Your task to perform on an android device: search for starred emails in the gmail app Image 0: 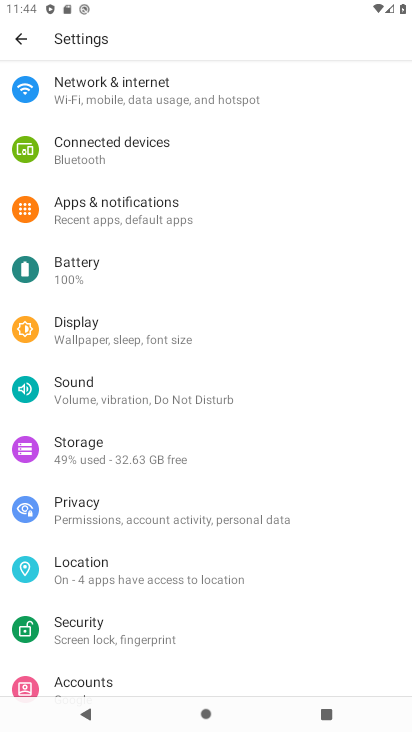
Step 0: press home button
Your task to perform on an android device: search for starred emails in the gmail app Image 1: 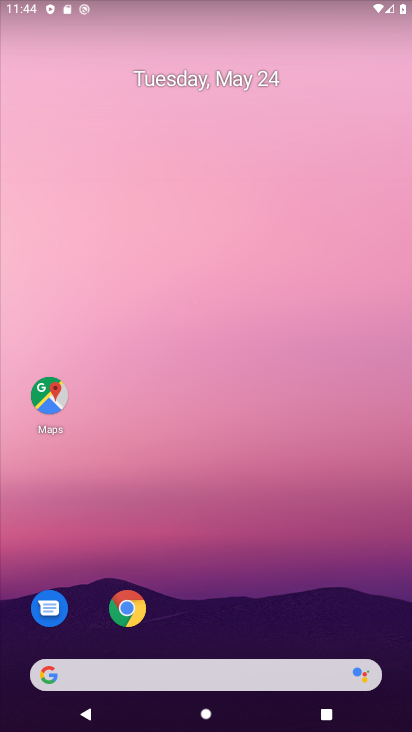
Step 1: drag from (210, 616) to (227, 521)
Your task to perform on an android device: search for starred emails in the gmail app Image 2: 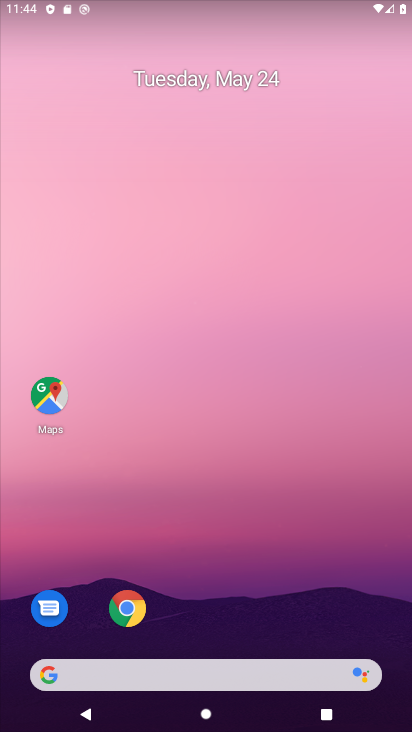
Step 2: drag from (170, 639) to (269, 142)
Your task to perform on an android device: search for starred emails in the gmail app Image 3: 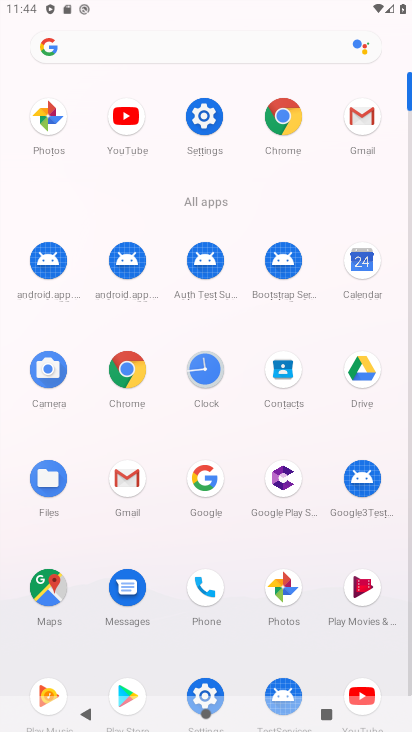
Step 3: click (114, 477)
Your task to perform on an android device: search for starred emails in the gmail app Image 4: 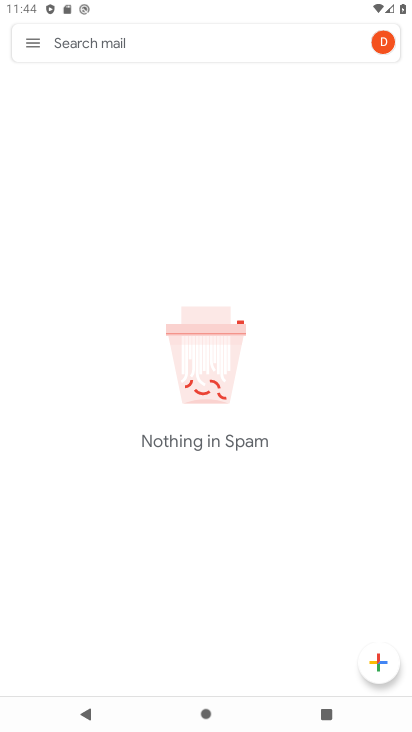
Step 4: click (46, 45)
Your task to perform on an android device: search for starred emails in the gmail app Image 5: 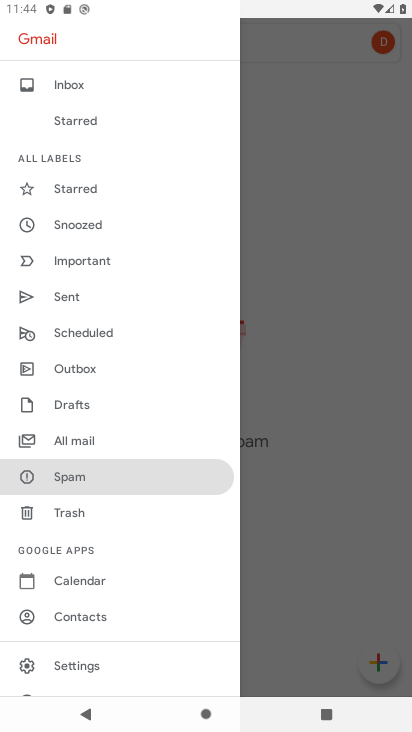
Step 5: click (131, 195)
Your task to perform on an android device: search for starred emails in the gmail app Image 6: 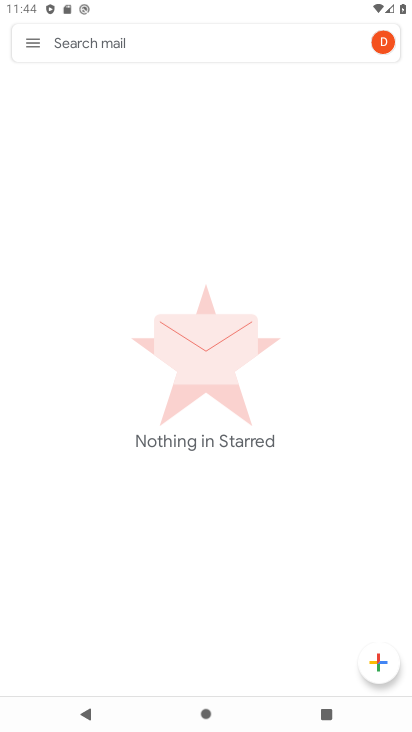
Step 6: task complete